Your task to perform on an android device: Go to ESPN.com Image 0: 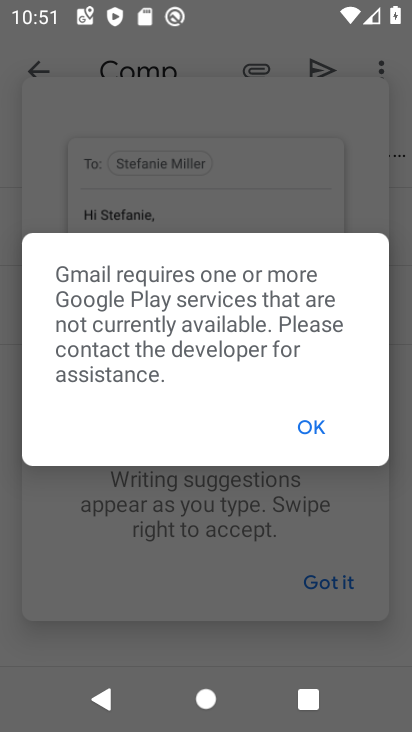
Step 0: press home button
Your task to perform on an android device: Go to ESPN.com Image 1: 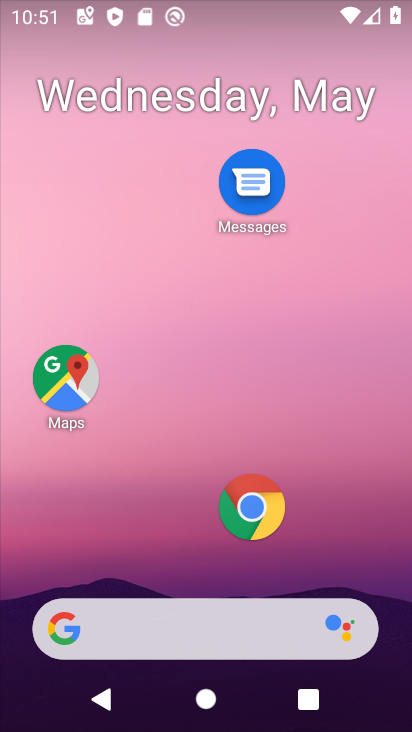
Step 1: click (251, 501)
Your task to perform on an android device: Go to ESPN.com Image 2: 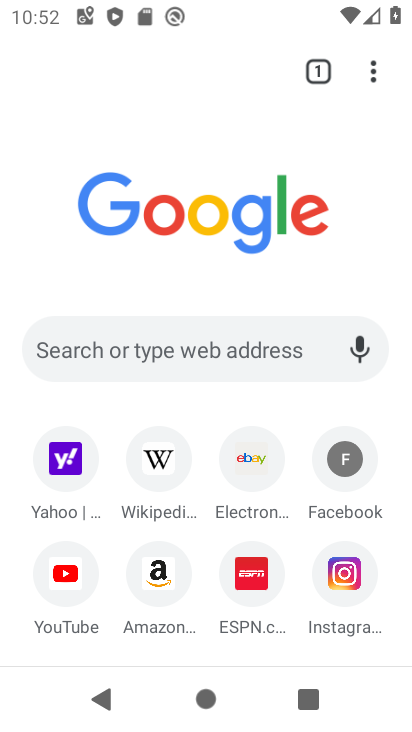
Step 2: click (252, 570)
Your task to perform on an android device: Go to ESPN.com Image 3: 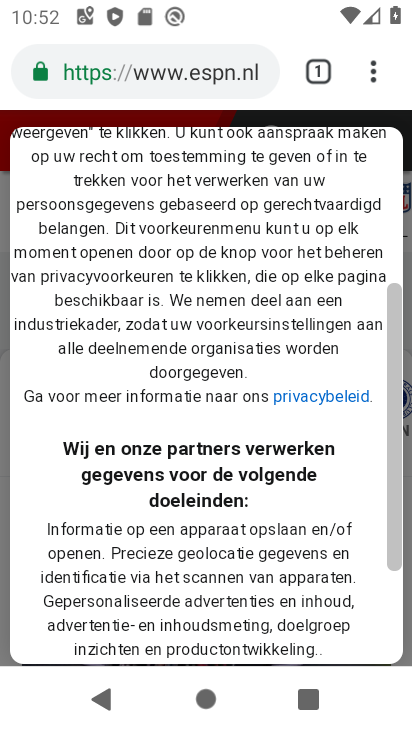
Step 3: drag from (197, 605) to (260, 89)
Your task to perform on an android device: Go to ESPN.com Image 4: 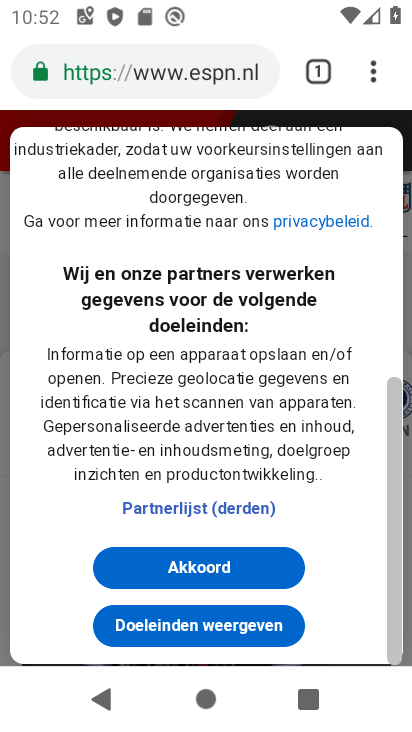
Step 4: click (204, 563)
Your task to perform on an android device: Go to ESPN.com Image 5: 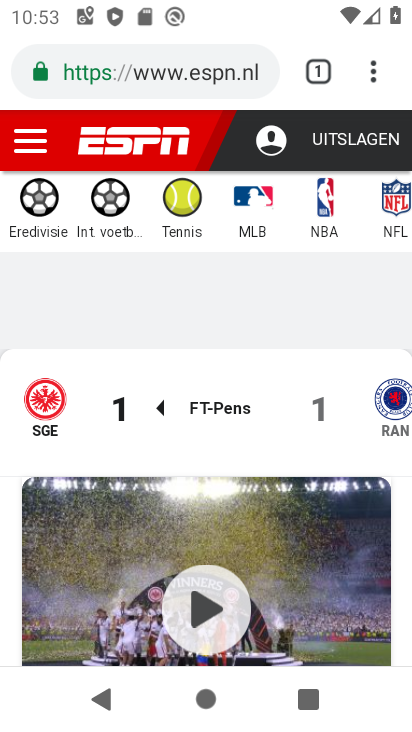
Step 5: task complete